Your task to perform on an android device: change keyboard looks Image 0: 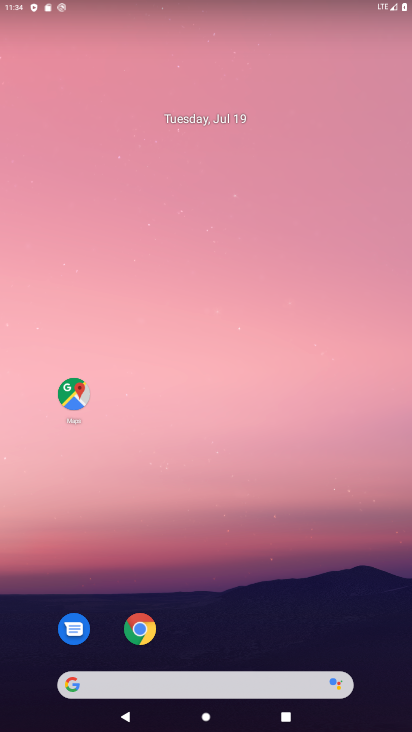
Step 0: drag from (187, 560) to (197, 77)
Your task to perform on an android device: change keyboard looks Image 1: 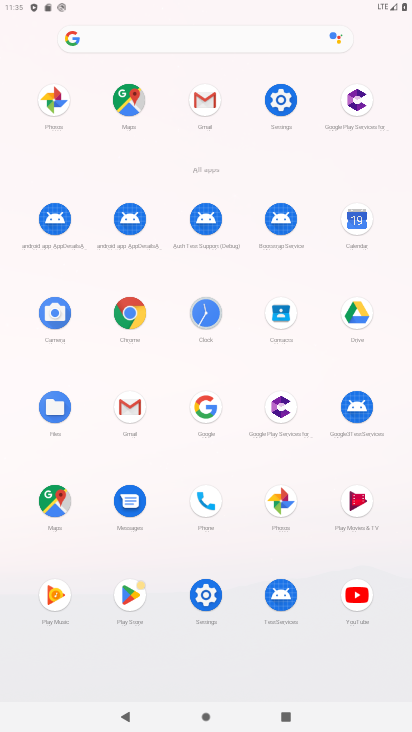
Step 1: click (284, 95)
Your task to perform on an android device: change keyboard looks Image 2: 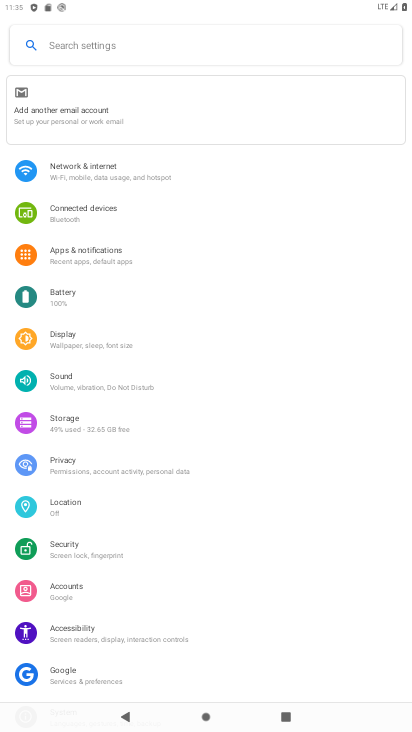
Step 2: drag from (139, 590) to (230, 266)
Your task to perform on an android device: change keyboard looks Image 3: 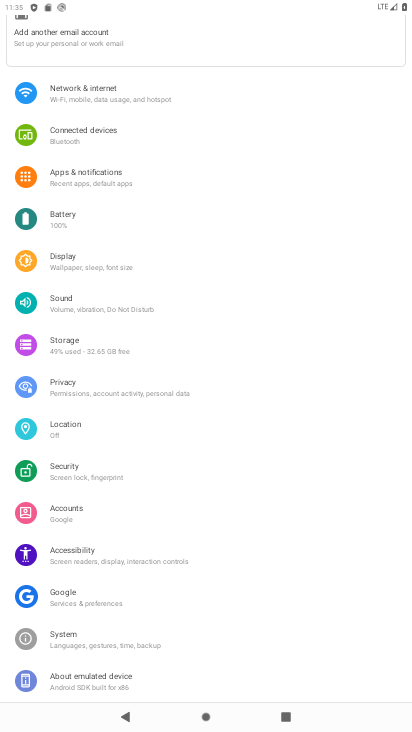
Step 3: click (77, 637)
Your task to perform on an android device: change keyboard looks Image 4: 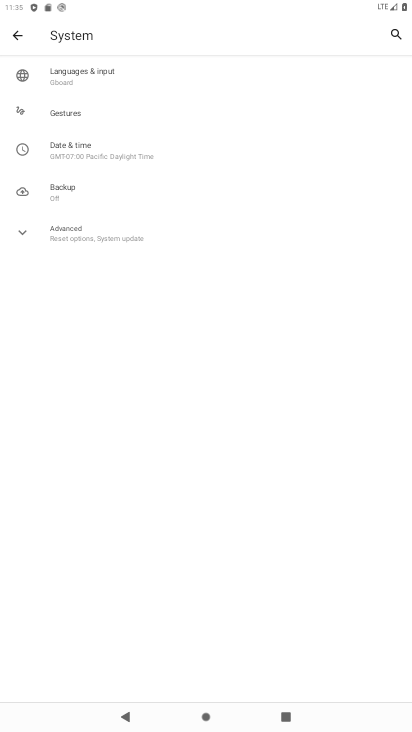
Step 4: click (84, 76)
Your task to perform on an android device: change keyboard looks Image 5: 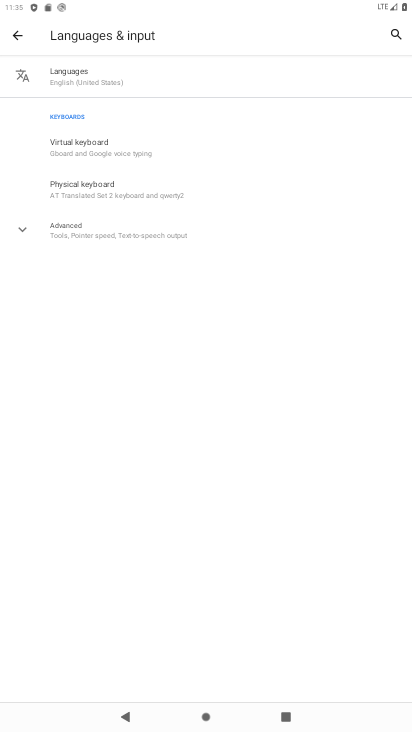
Step 5: click (104, 145)
Your task to perform on an android device: change keyboard looks Image 6: 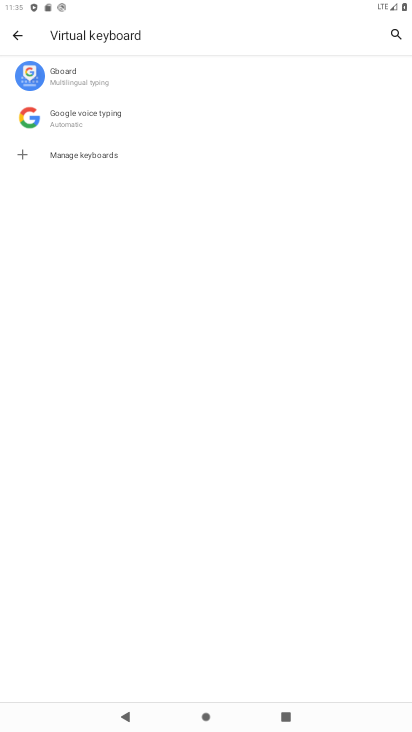
Step 6: click (62, 66)
Your task to perform on an android device: change keyboard looks Image 7: 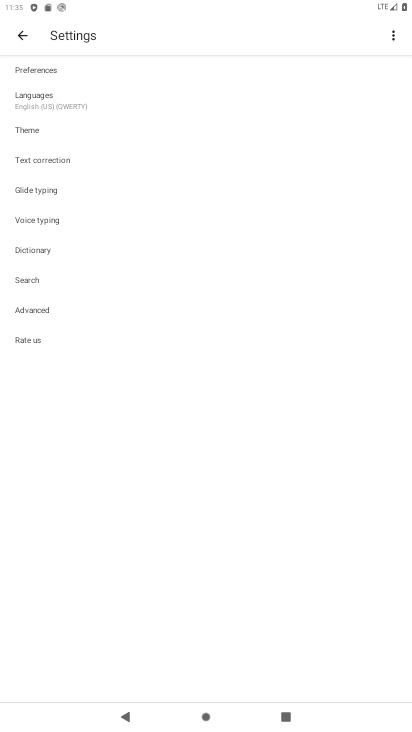
Step 7: click (28, 133)
Your task to perform on an android device: change keyboard looks Image 8: 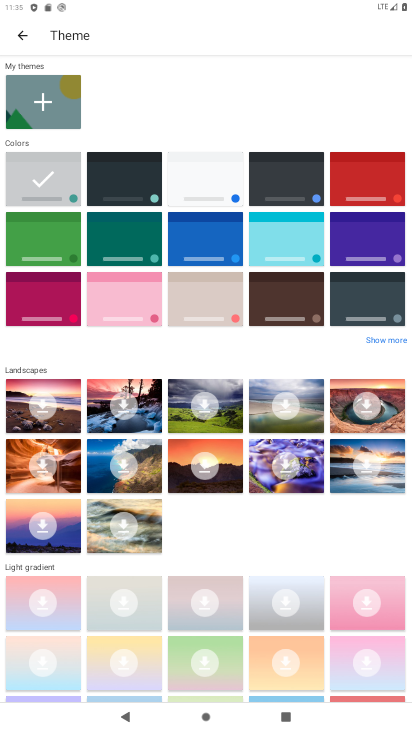
Step 8: click (137, 175)
Your task to perform on an android device: change keyboard looks Image 9: 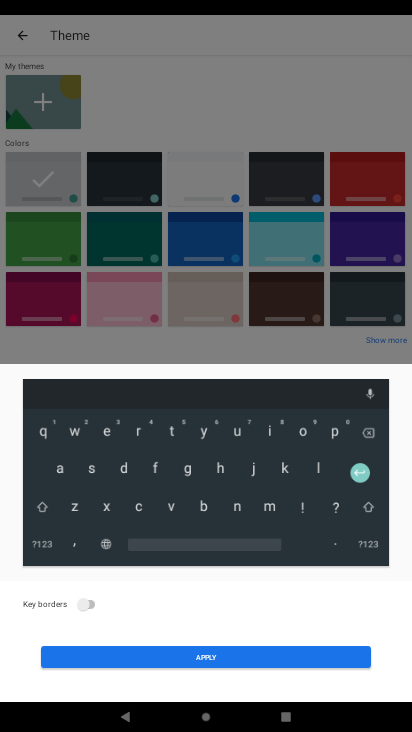
Step 9: click (211, 654)
Your task to perform on an android device: change keyboard looks Image 10: 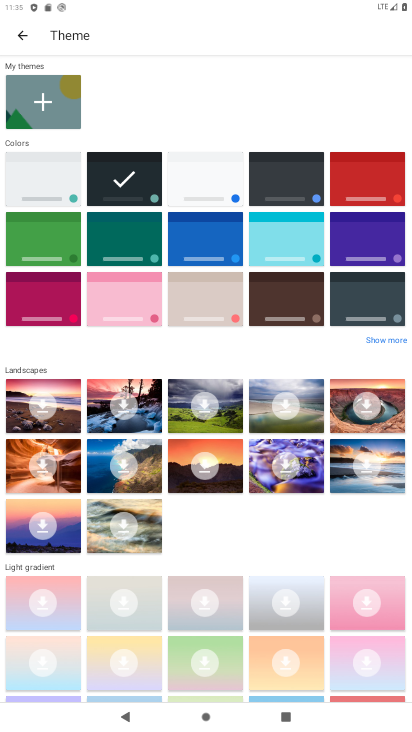
Step 10: task complete